Your task to perform on an android device: turn smart compose on in the gmail app Image 0: 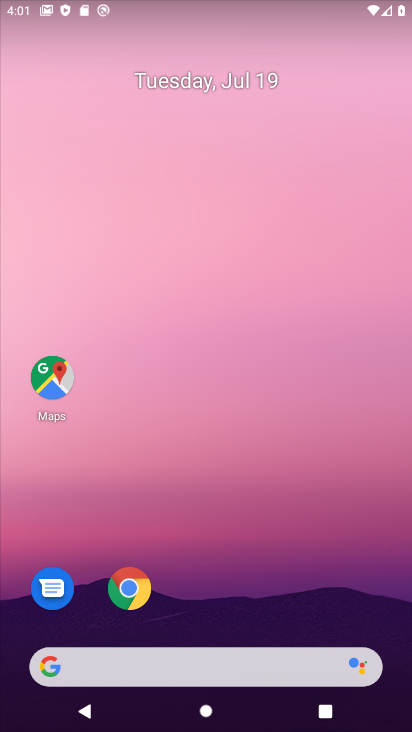
Step 0: drag from (273, 602) to (305, 175)
Your task to perform on an android device: turn smart compose on in the gmail app Image 1: 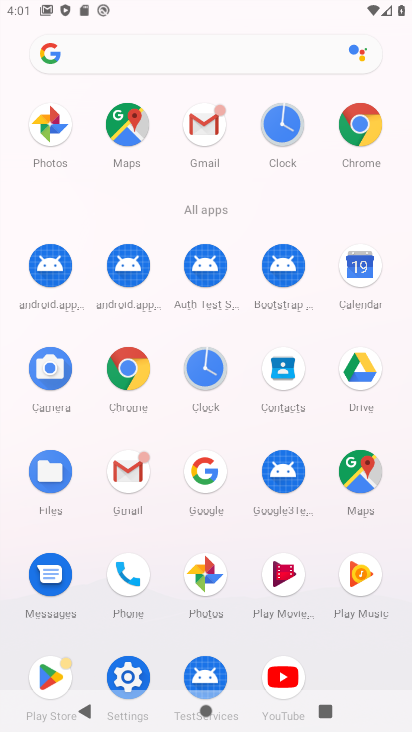
Step 1: click (128, 486)
Your task to perform on an android device: turn smart compose on in the gmail app Image 2: 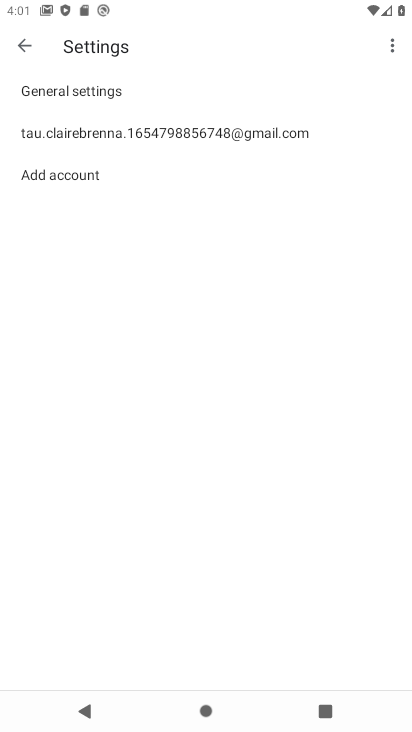
Step 2: click (277, 131)
Your task to perform on an android device: turn smart compose on in the gmail app Image 3: 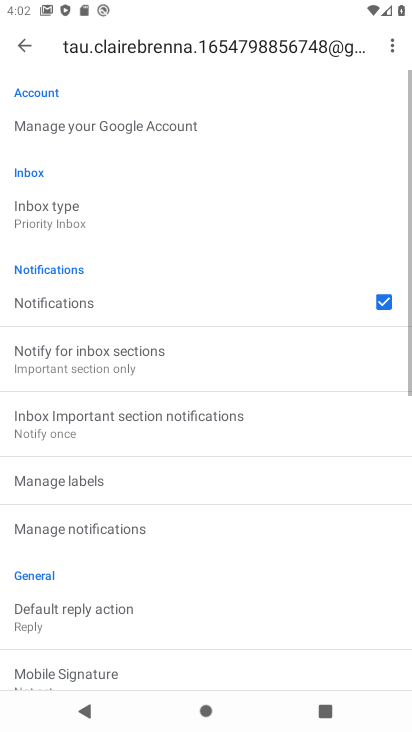
Step 3: task complete